Your task to perform on an android device: Open Google Chrome Image 0: 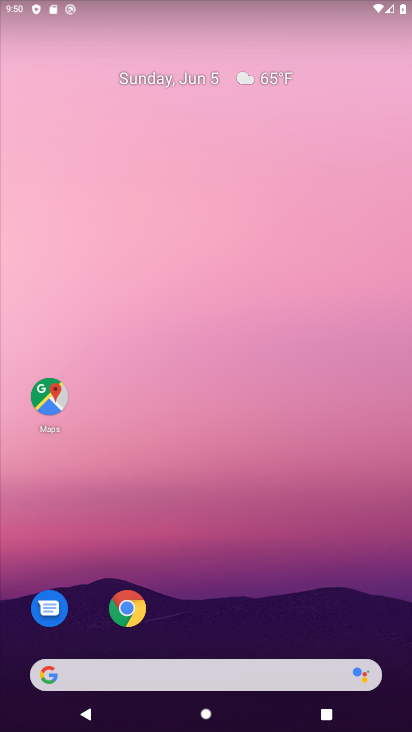
Step 0: drag from (164, 0) to (113, 6)
Your task to perform on an android device: Open Google Chrome Image 1: 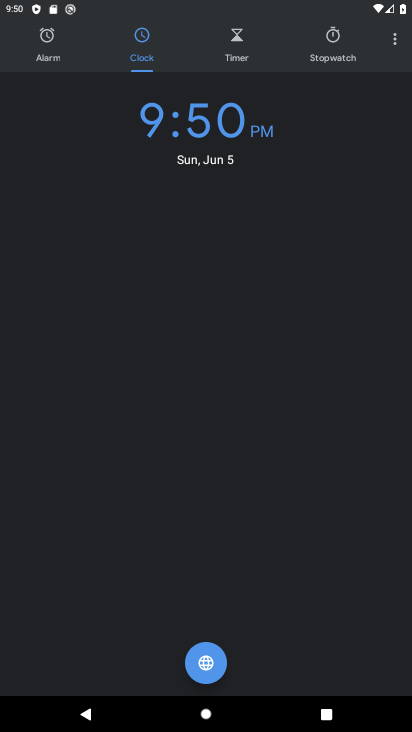
Step 1: press home button
Your task to perform on an android device: Open Google Chrome Image 2: 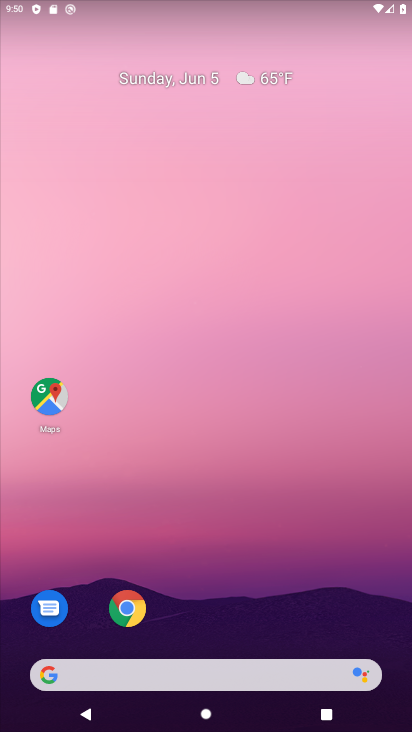
Step 2: click (124, 630)
Your task to perform on an android device: Open Google Chrome Image 3: 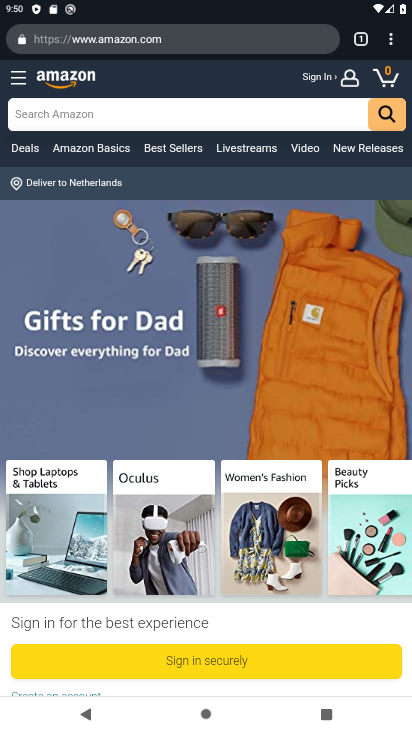
Step 3: task complete